Your task to perform on an android device: Search for seafood restaurants on Google Maps Image 0: 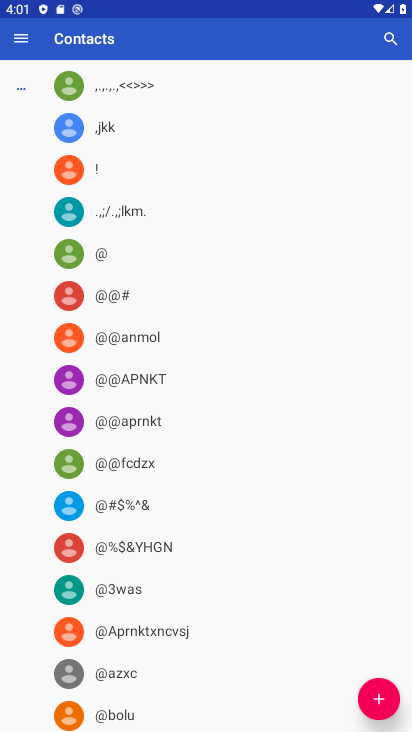
Step 0: press home button
Your task to perform on an android device: Search for seafood restaurants on Google Maps Image 1: 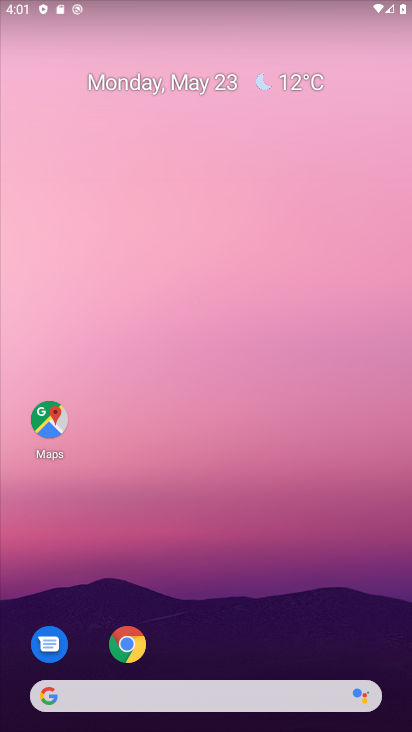
Step 1: drag from (224, 637) to (169, 168)
Your task to perform on an android device: Search for seafood restaurants on Google Maps Image 2: 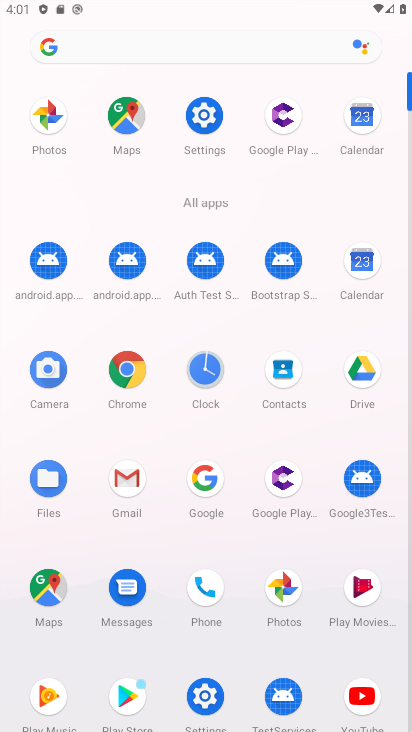
Step 2: click (129, 123)
Your task to perform on an android device: Search for seafood restaurants on Google Maps Image 3: 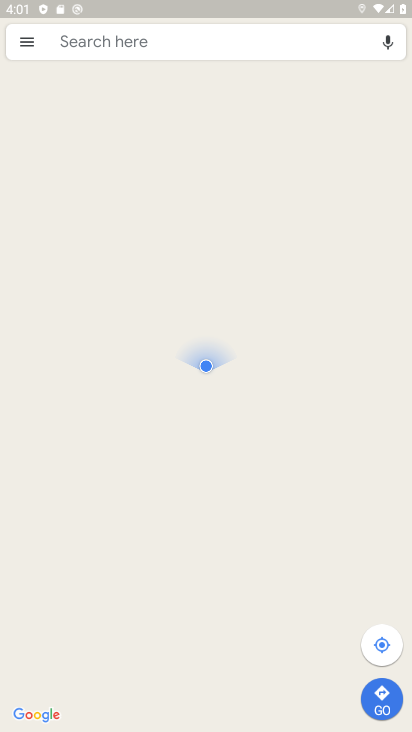
Step 3: click (100, 41)
Your task to perform on an android device: Search for seafood restaurants on Google Maps Image 4: 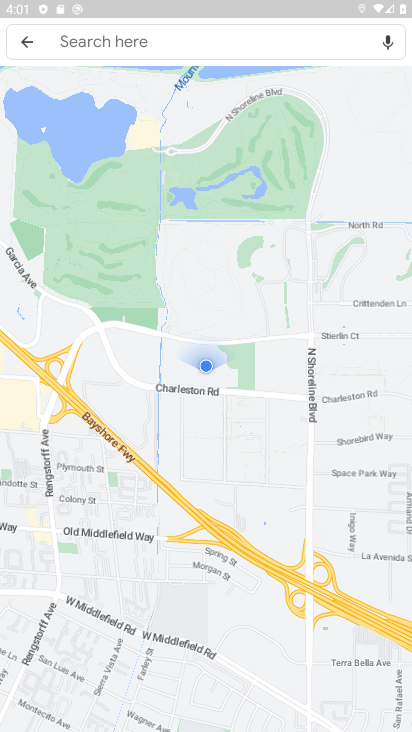
Step 4: click (100, 41)
Your task to perform on an android device: Search for seafood restaurants on Google Maps Image 5: 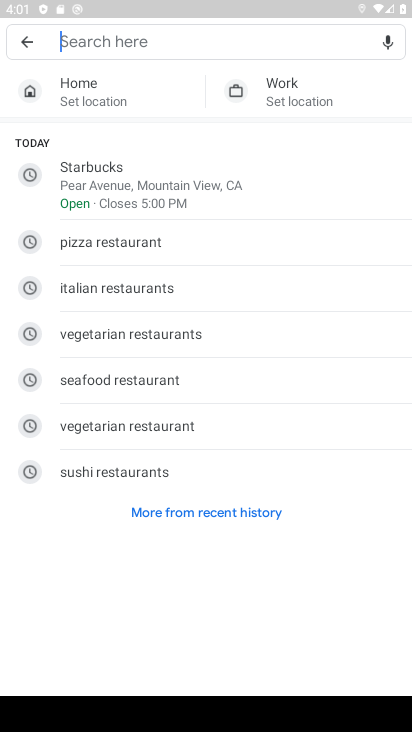
Step 5: type "seafood restaurants"
Your task to perform on an android device: Search for seafood restaurants on Google Maps Image 6: 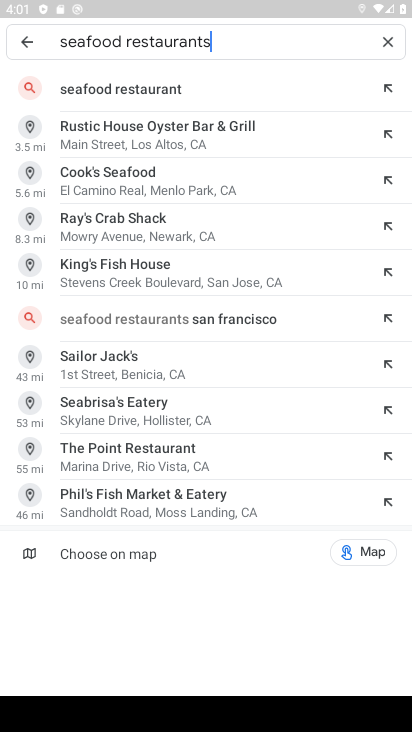
Step 6: click (188, 91)
Your task to perform on an android device: Search for seafood restaurants on Google Maps Image 7: 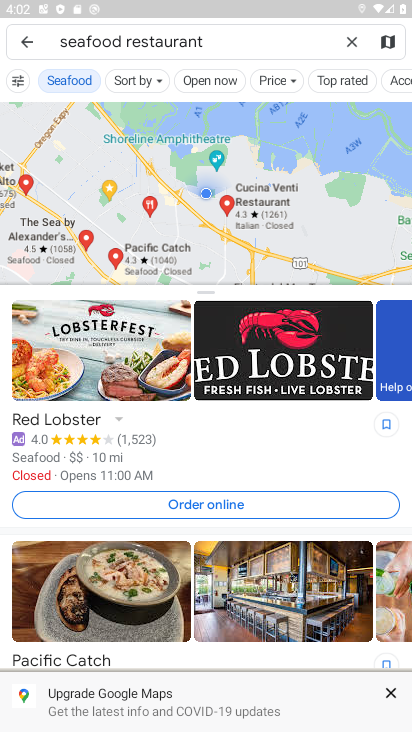
Step 7: task complete